Your task to perform on an android device: Go to Android settings Image 0: 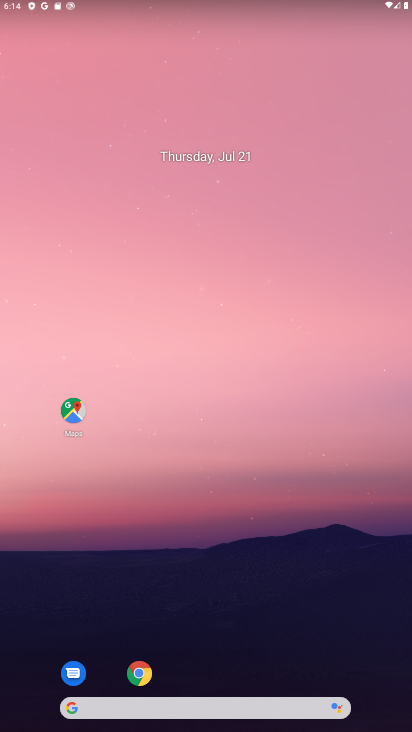
Step 0: drag from (202, 665) to (190, 179)
Your task to perform on an android device: Go to Android settings Image 1: 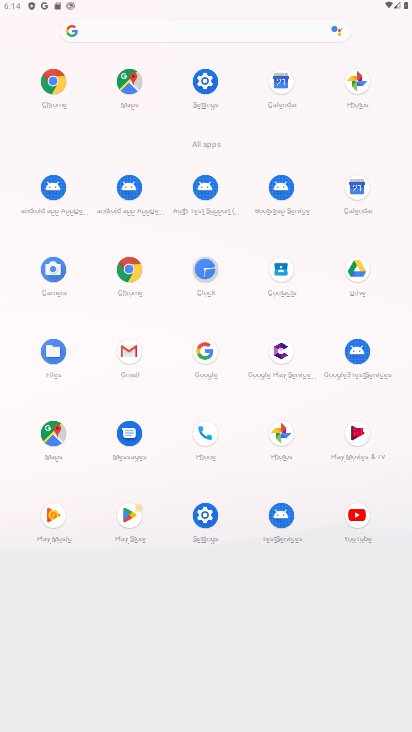
Step 1: click (202, 92)
Your task to perform on an android device: Go to Android settings Image 2: 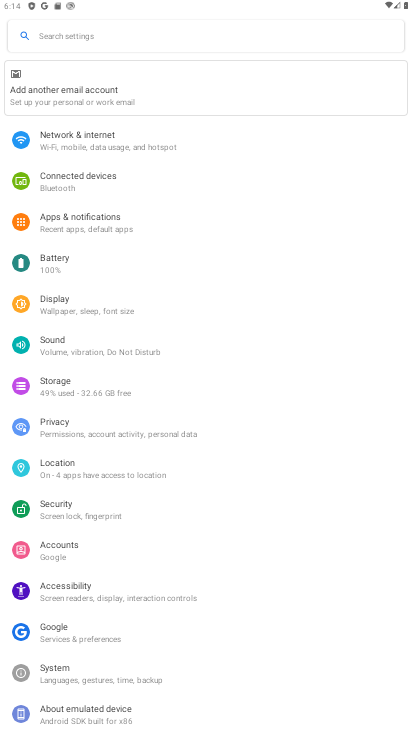
Step 2: click (36, 720)
Your task to perform on an android device: Go to Android settings Image 3: 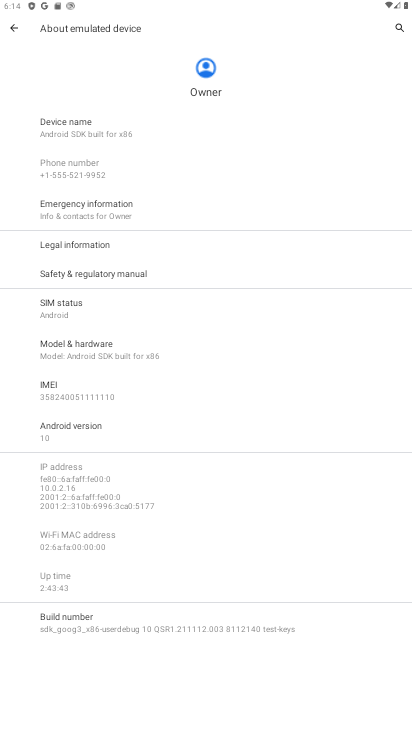
Step 3: click (98, 427)
Your task to perform on an android device: Go to Android settings Image 4: 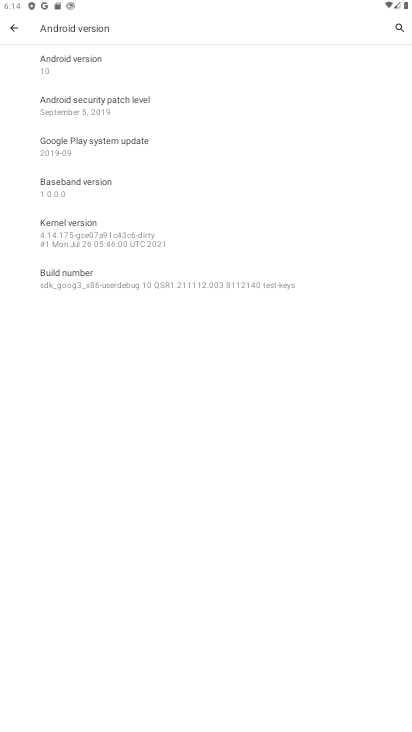
Step 4: task complete